Your task to perform on an android device: open app "Nova Launcher" (install if not already installed), go to login, and select forgot password Image 0: 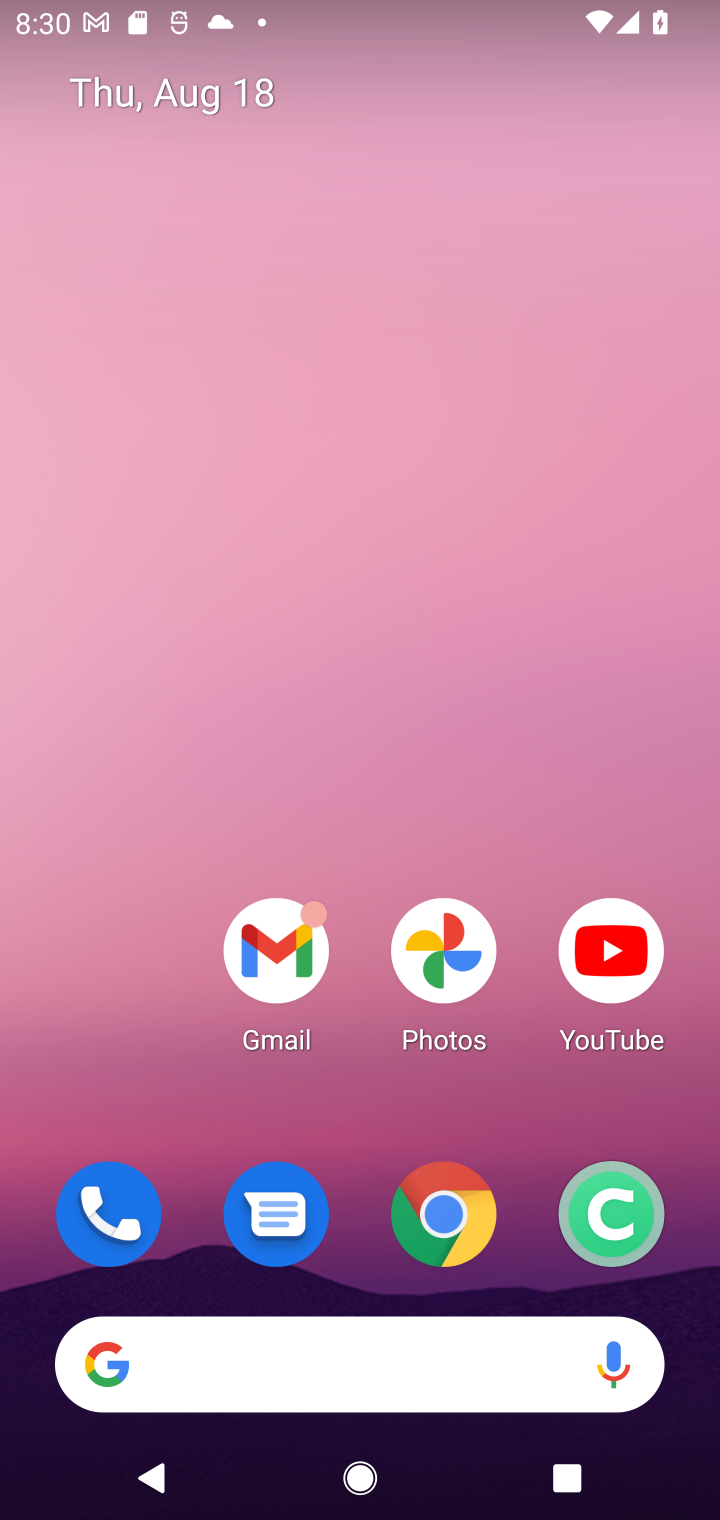
Step 0: drag from (174, 751) to (371, 20)
Your task to perform on an android device: open app "Nova Launcher" (install if not already installed), go to login, and select forgot password Image 1: 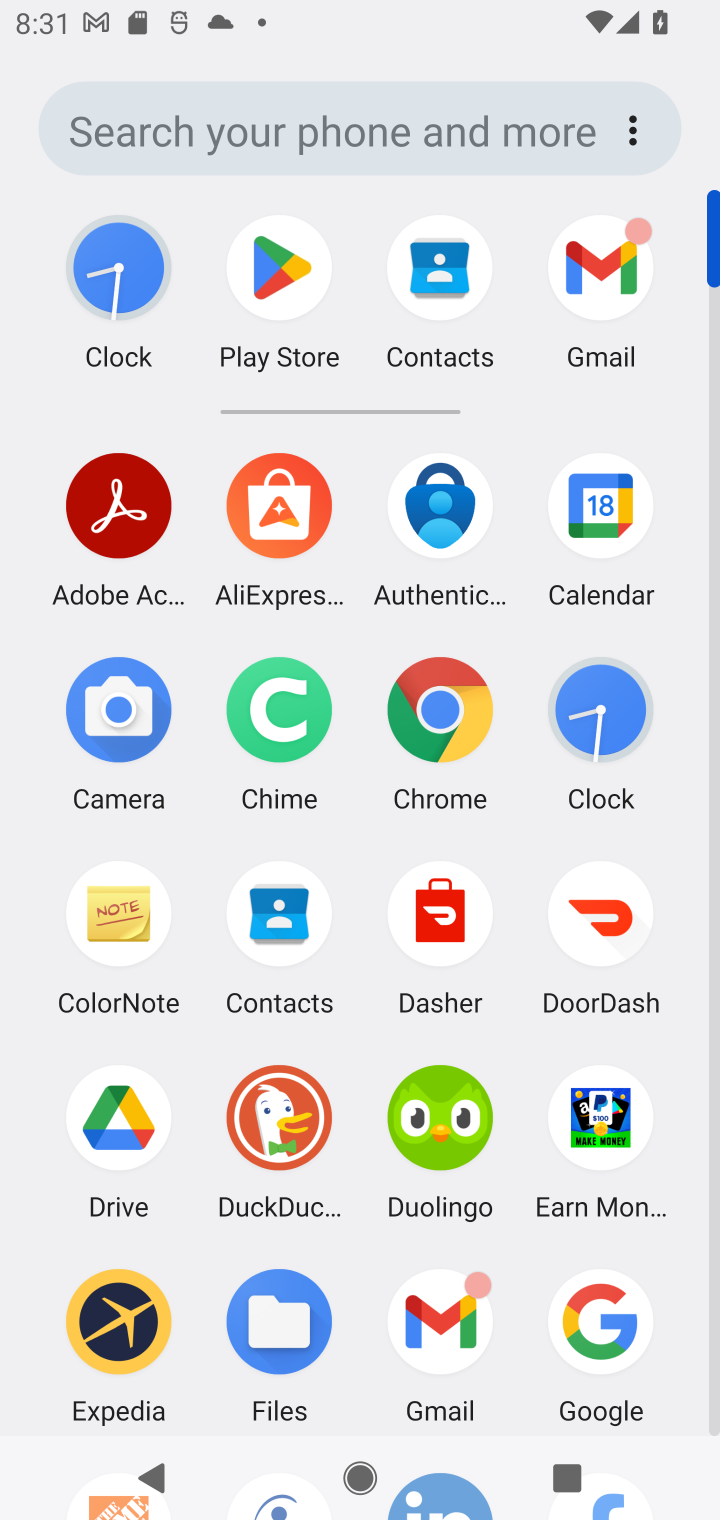
Step 1: click (278, 248)
Your task to perform on an android device: open app "Nova Launcher" (install if not already installed), go to login, and select forgot password Image 2: 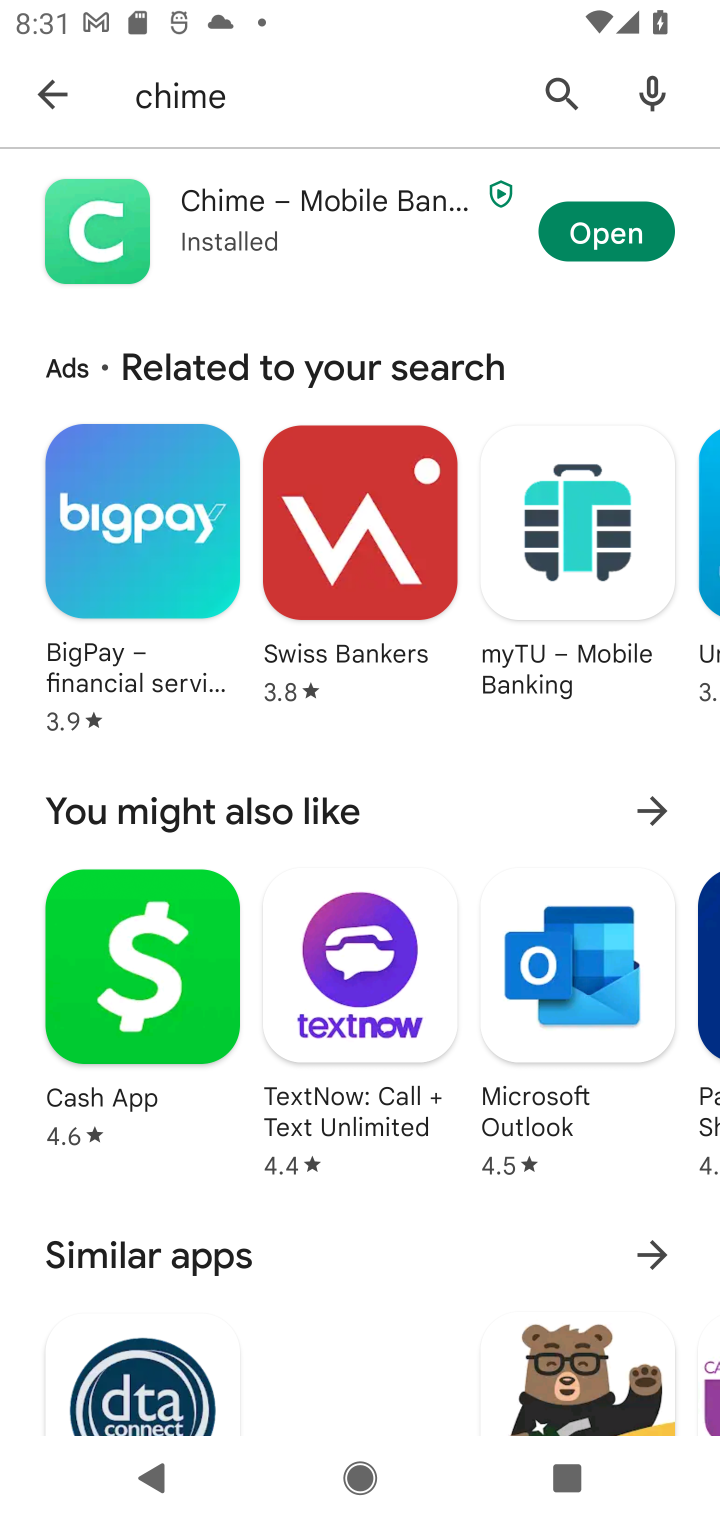
Step 2: click (556, 98)
Your task to perform on an android device: open app "Nova Launcher" (install if not already installed), go to login, and select forgot password Image 3: 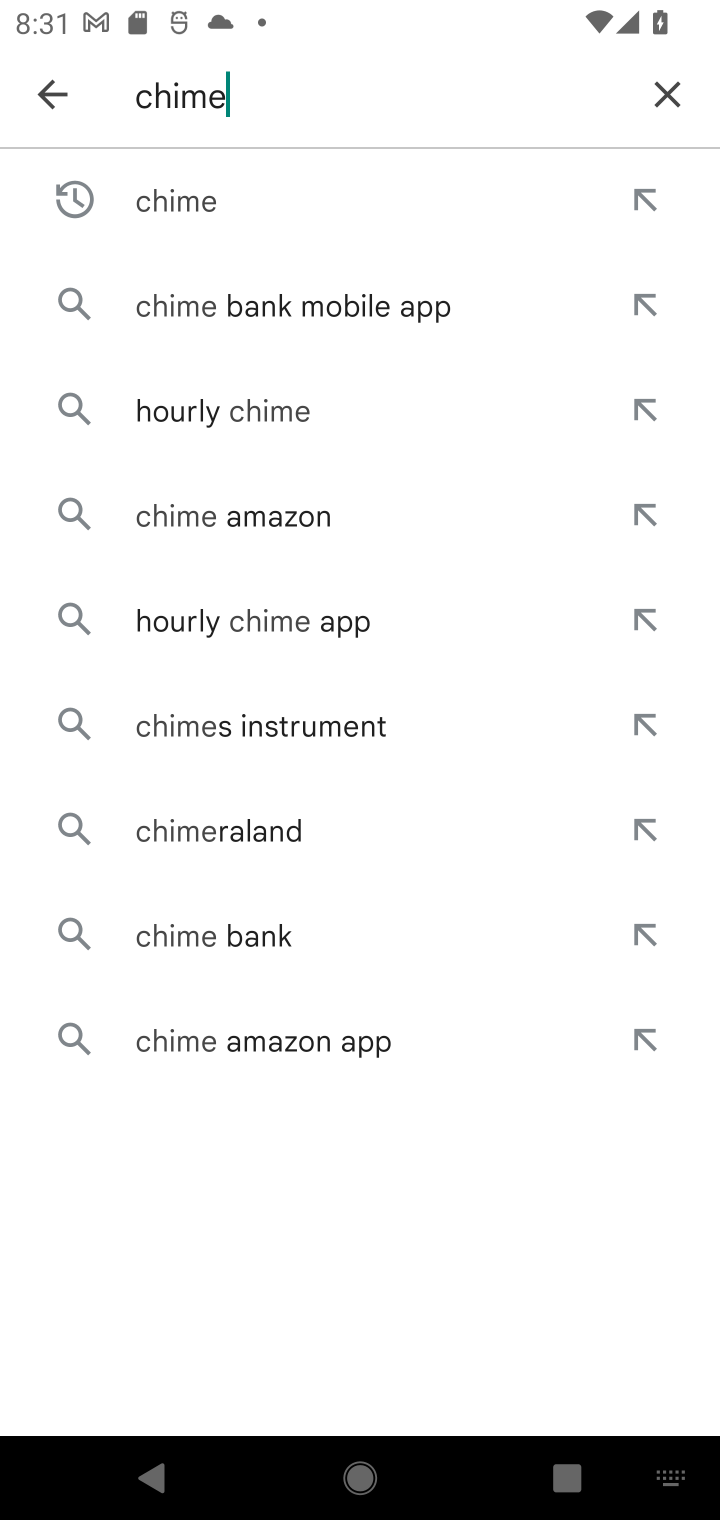
Step 3: click (660, 85)
Your task to perform on an android device: open app "Nova Launcher" (install if not already installed), go to login, and select forgot password Image 4: 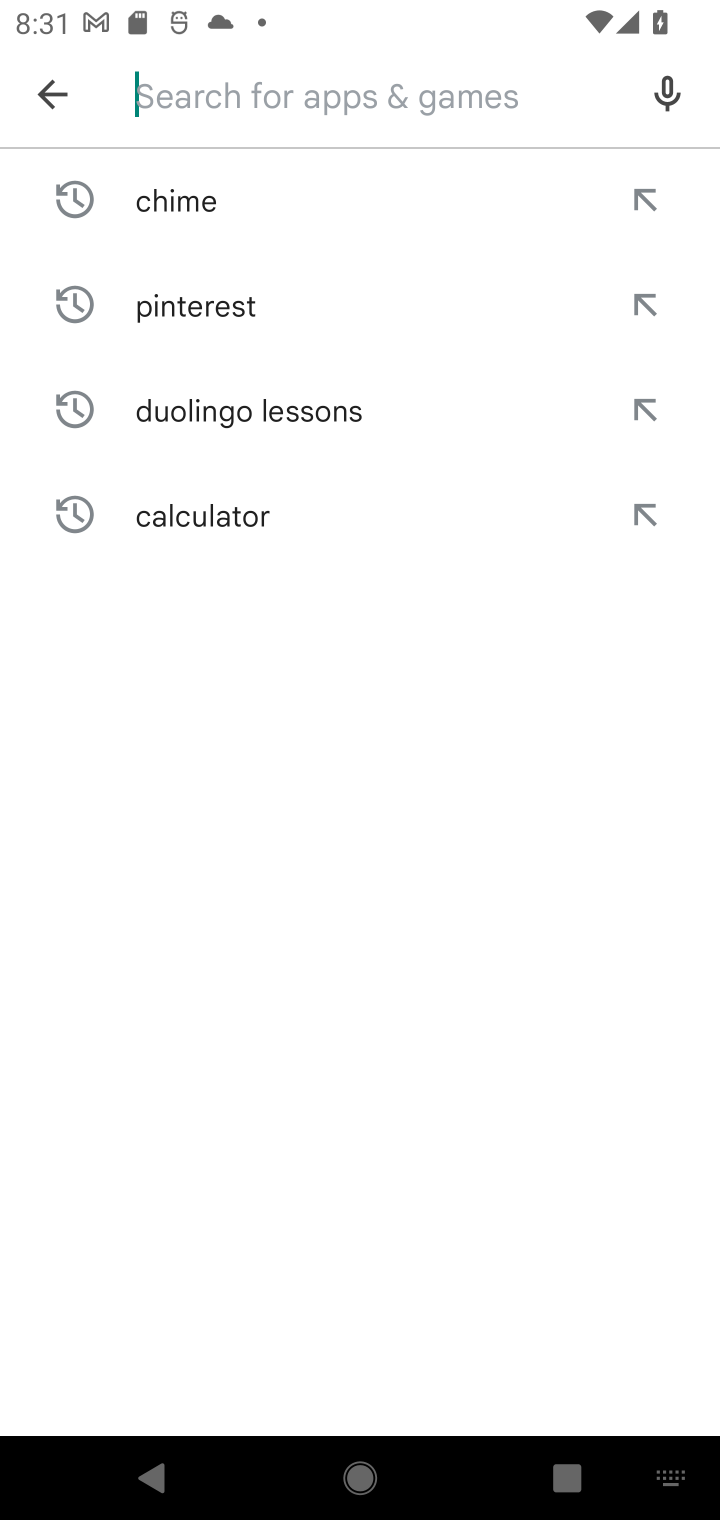
Step 4: click (371, 90)
Your task to perform on an android device: open app "Nova Launcher" (install if not already installed), go to login, and select forgot password Image 5: 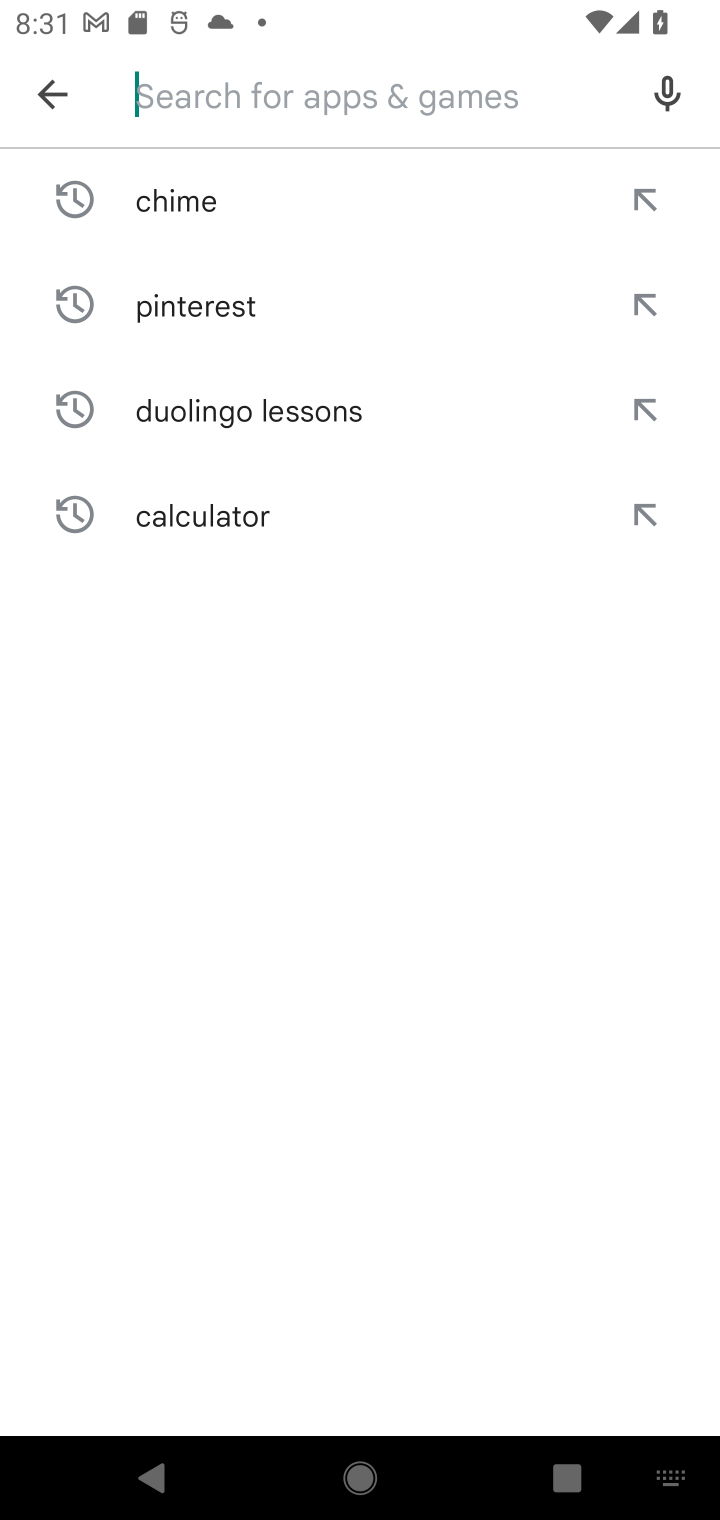
Step 5: type "nova launcher"
Your task to perform on an android device: open app "Nova Launcher" (install if not already installed), go to login, and select forgot password Image 6: 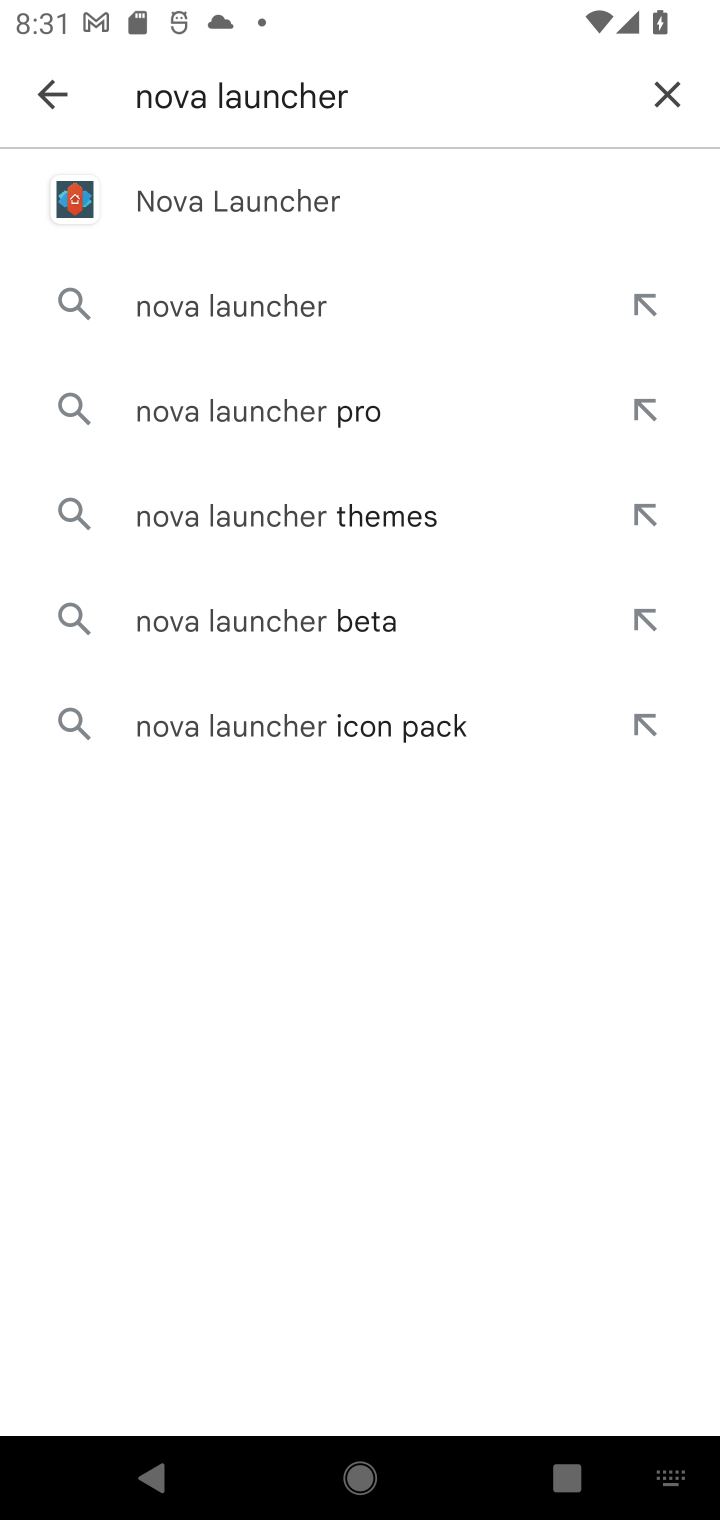
Step 6: click (175, 201)
Your task to perform on an android device: open app "Nova Launcher" (install if not already installed), go to login, and select forgot password Image 7: 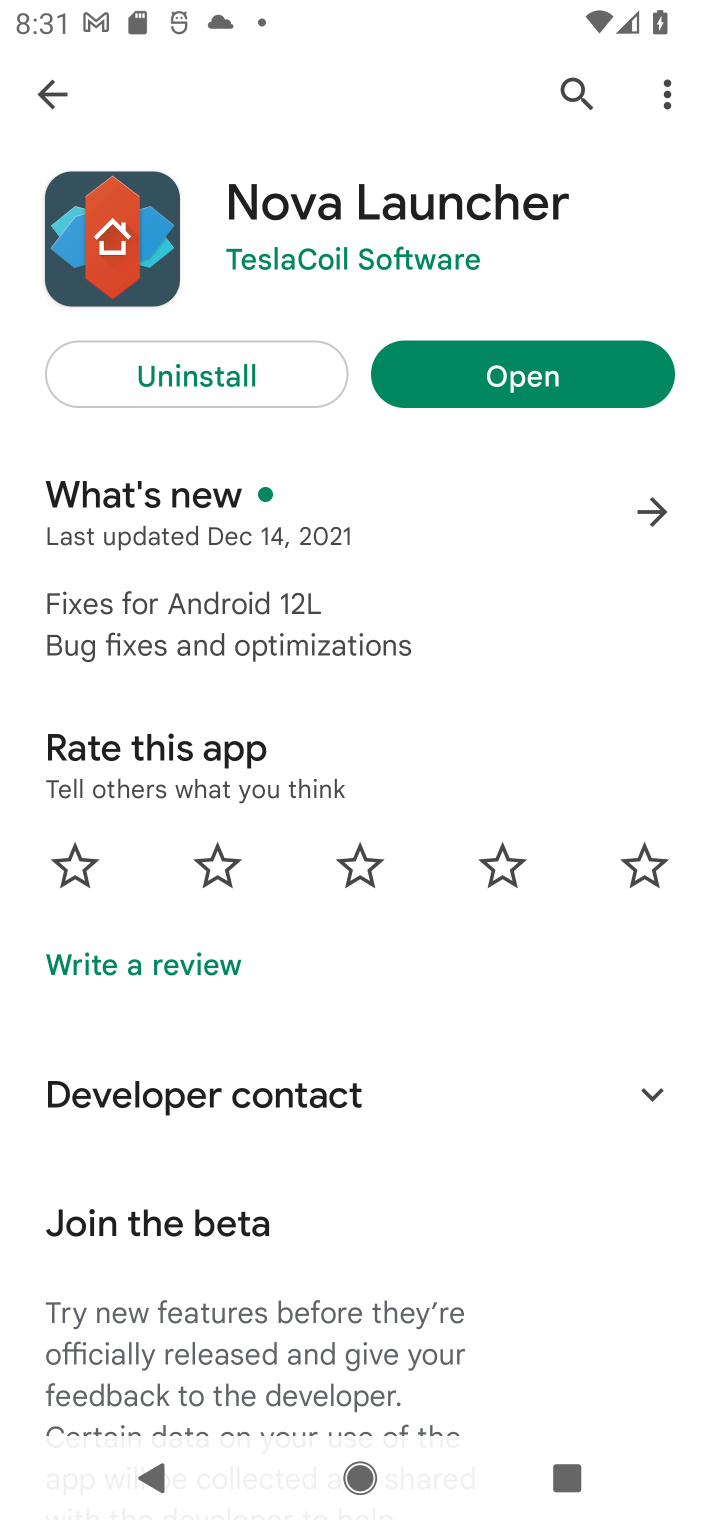
Step 7: click (475, 368)
Your task to perform on an android device: open app "Nova Launcher" (install if not already installed), go to login, and select forgot password Image 8: 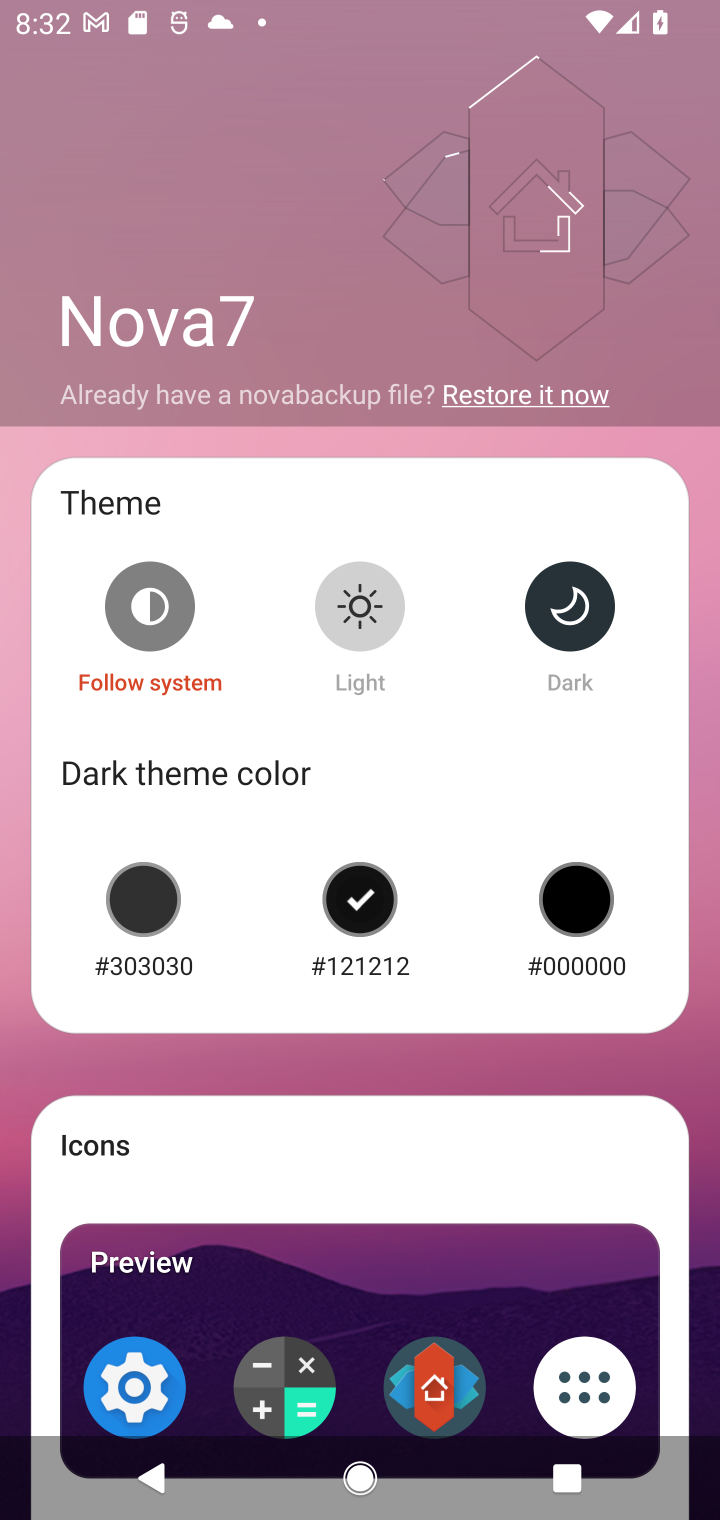
Step 8: task complete